Your task to perform on an android device: Show me the alarms in the clock app Image 0: 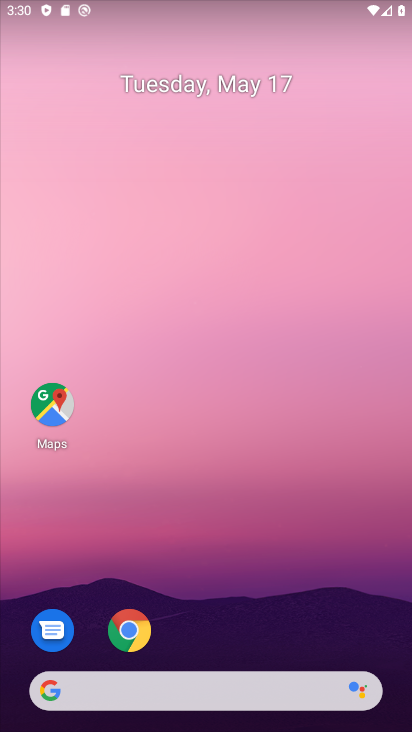
Step 0: drag from (195, 654) to (346, 112)
Your task to perform on an android device: Show me the alarms in the clock app Image 1: 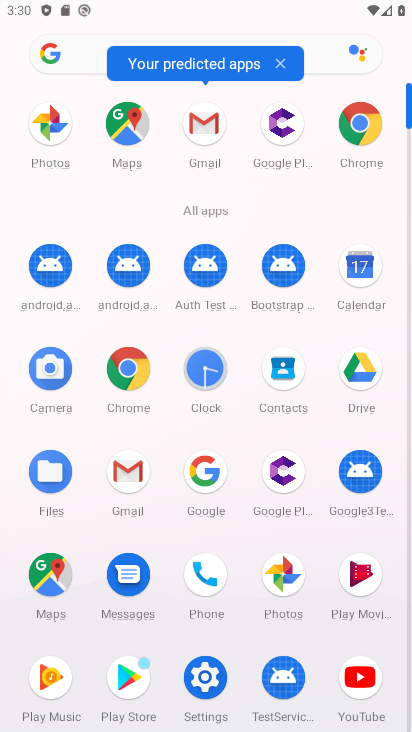
Step 1: click (212, 366)
Your task to perform on an android device: Show me the alarms in the clock app Image 2: 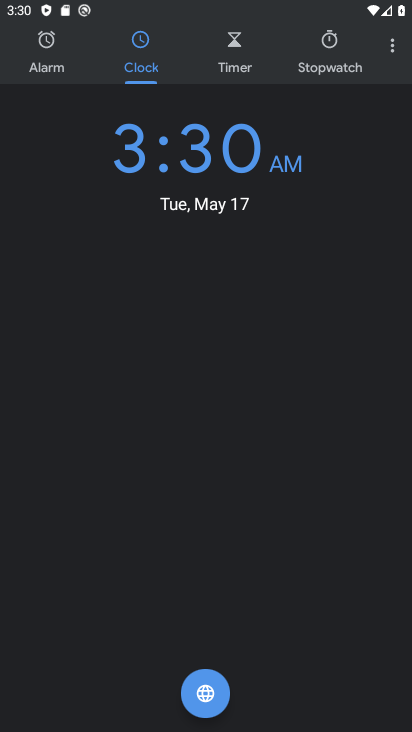
Step 2: click (56, 69)
Your task to perform on an android device: Show me the alarms in the clock app Image 3: 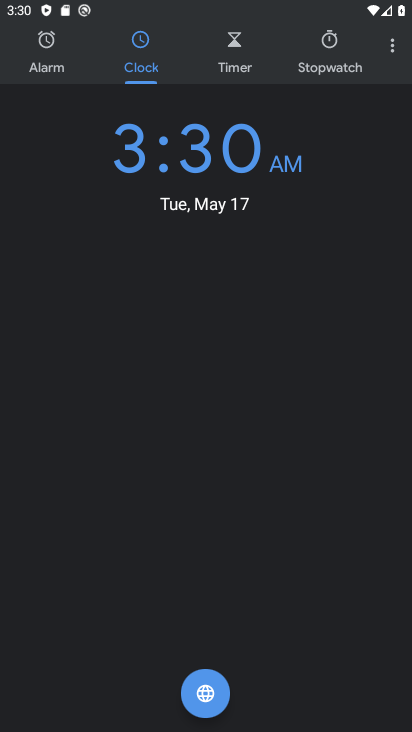
Step 3: click (50, 49)
Your task to perform on an android device: Show me the alarms in the clock app Image 4: 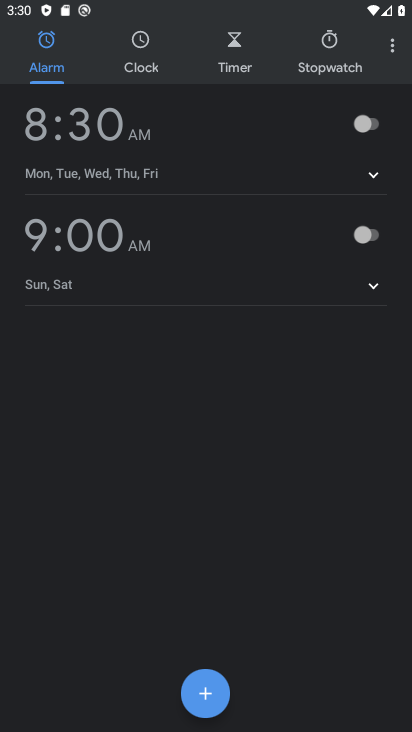
Step 4: task complete